Your task to perform on an android device: Open settings Image 0: 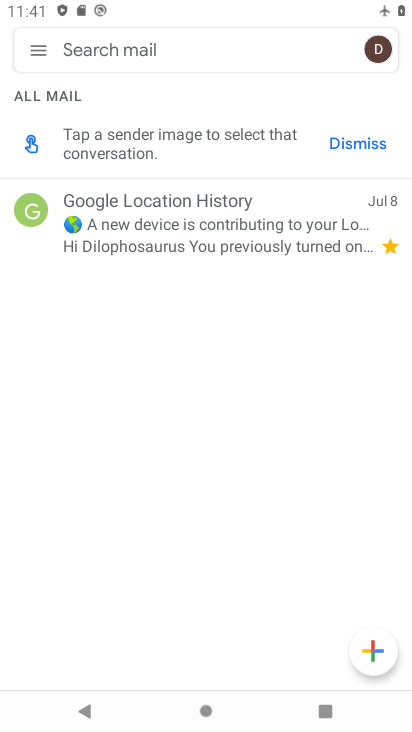
Step 0: press home button
Your task to perform on an android device: Open settings Image 1: 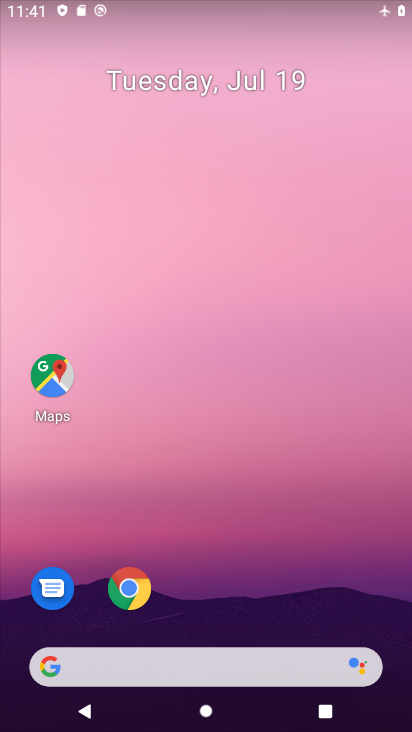
Step 1: drag from (302, 603) to (268, 49)
Your task to perform on an android device: Open settings Image 2: 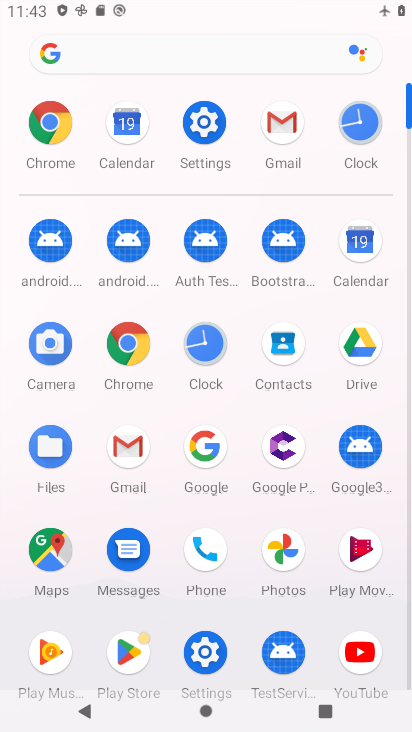
Step 2: click (210, 653)
Your task to perform on an android device: Open settings Image 3: 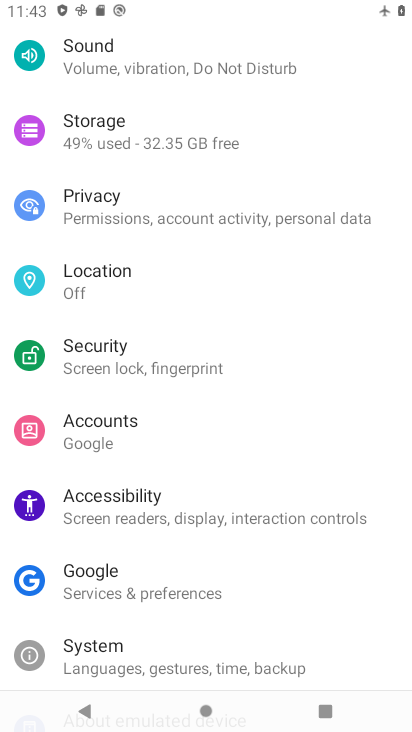
Step 3: task complete